Your task to perform on an android device: Open CNN.com Image 0: 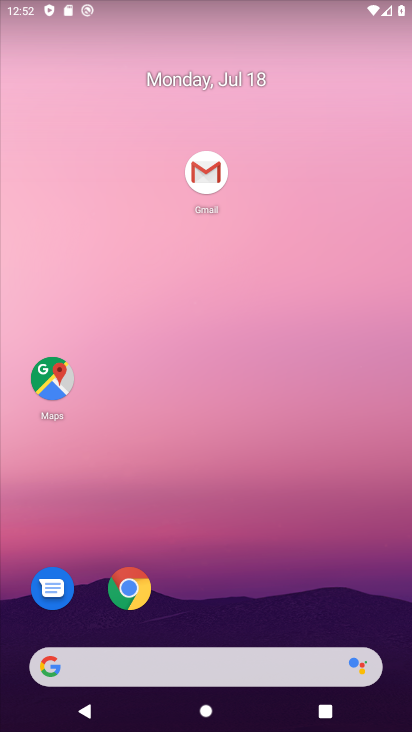
Step 0: click (120, 673)
Your task to perform on an android device: Open CNN.com Image 1: 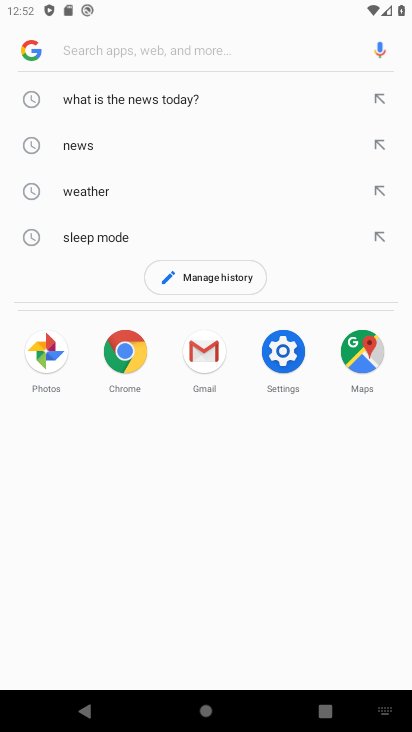
Step 1: type "CNN.com"
Your task to perform on an android device: Open CNN.com Image 2: 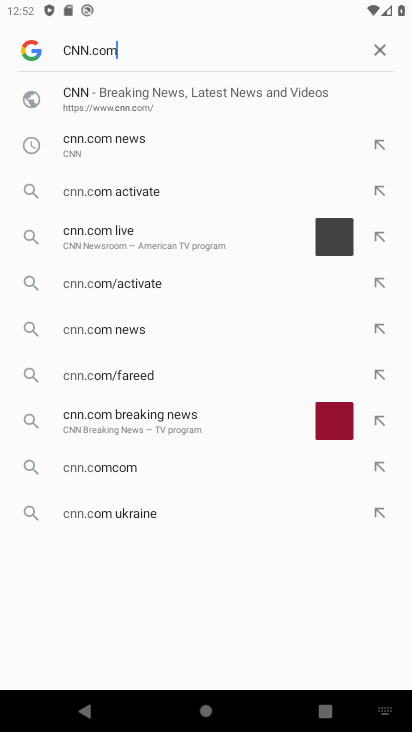
Step 2: type ""
Your task to perform on an android device: Open CNN.com Image 3: 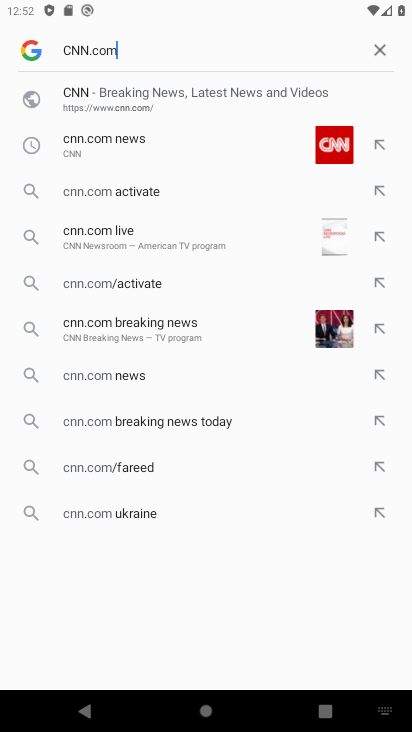
Step 3: press enter
Your task to perform on an android device: Open CNN.com Image 4: 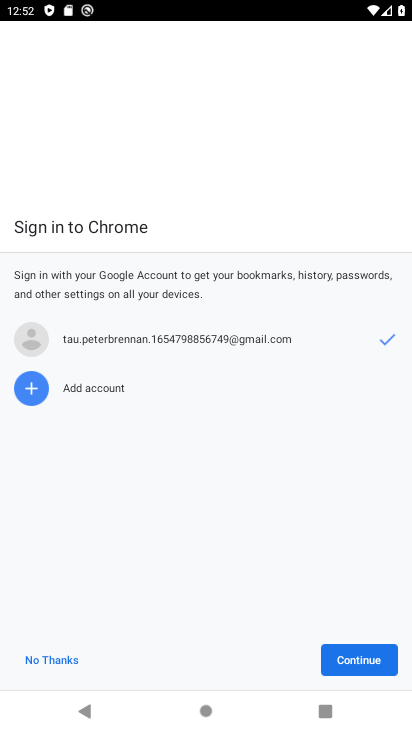
Step 4: click (358, 663)
Your task to perform on an android device: Open CNN.com Image 5: 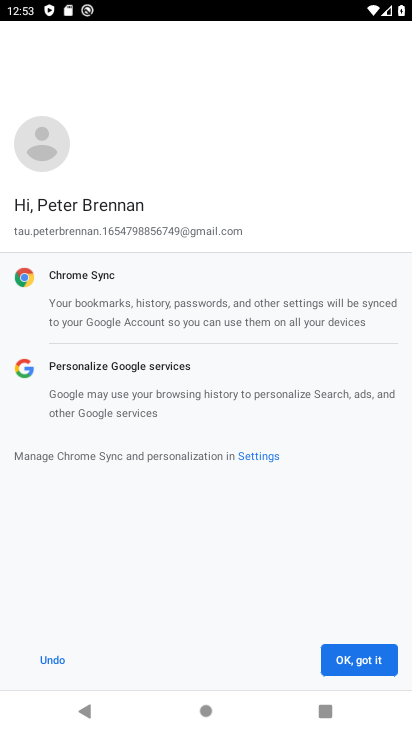
Step 5: click (353, 667)
Your task to perform on an android device: Open CNN.com Image 6: 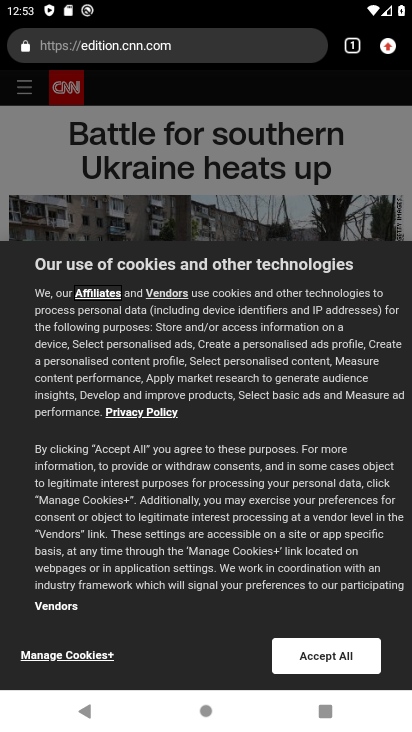
Step 6: task complete